Your task to perform on an android device: Open Amazon Image 0: 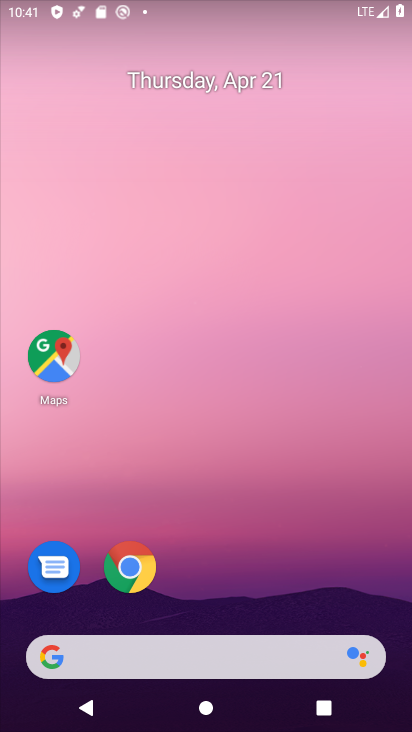
Step 0: click (137, 569)
Your task to perform on an android device: Open Amazon Image 1: 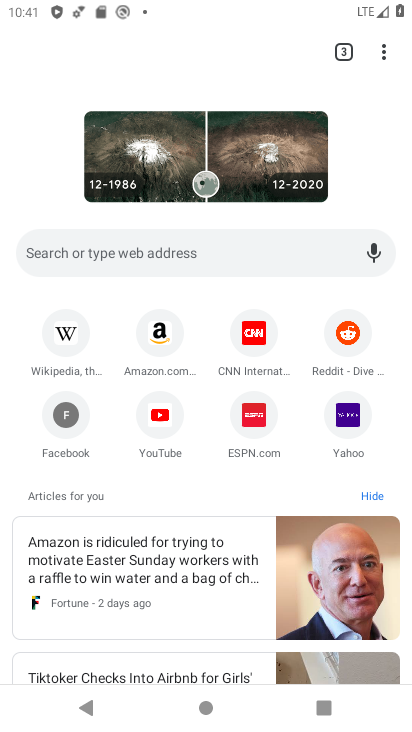
Step 1: click (174, 328)
Your task to perform on an android device: Open Amazon Image 2: 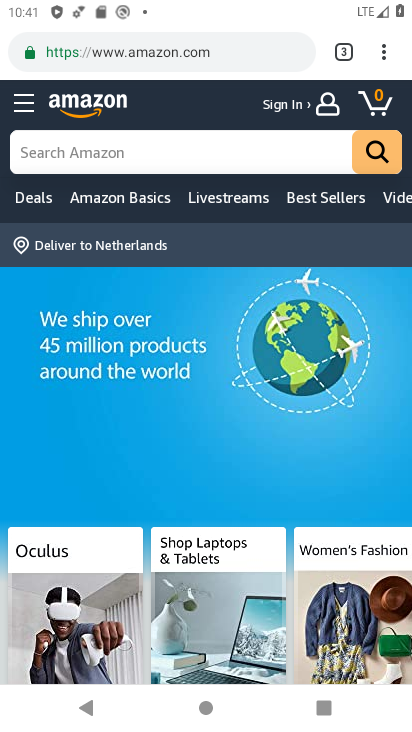
Step 2: task complete